Your task to perform on an android device: change alarm snooze length Image 0: 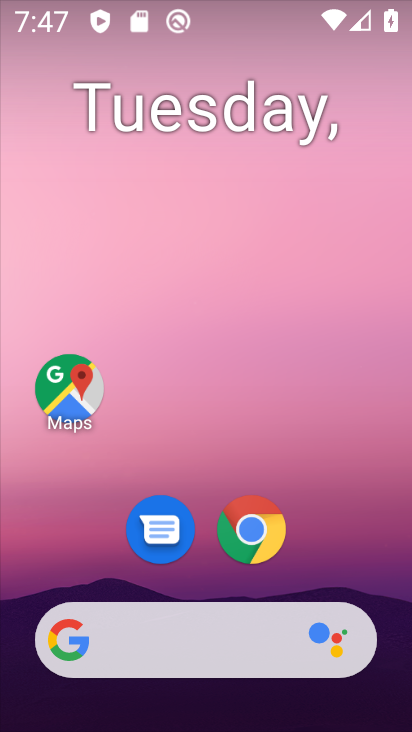
Step 0: drag from (201, 581) to (292, 12)
Your task to perform on an android device: change alarm snooze length Image 1: 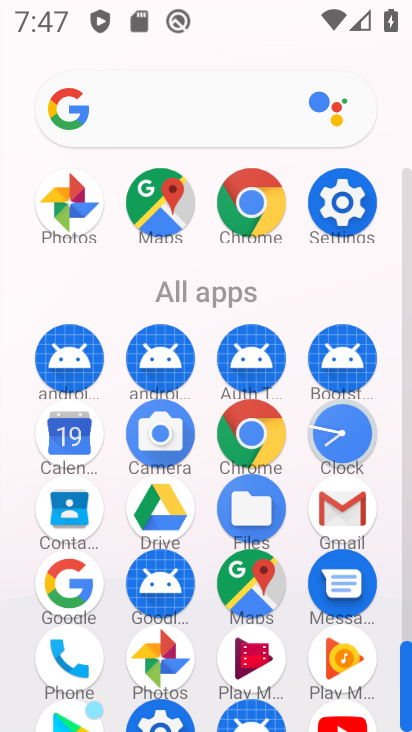
Step 1: click (342, 426)
Your task to perform on an android device: change alarm snooze length Image 2: 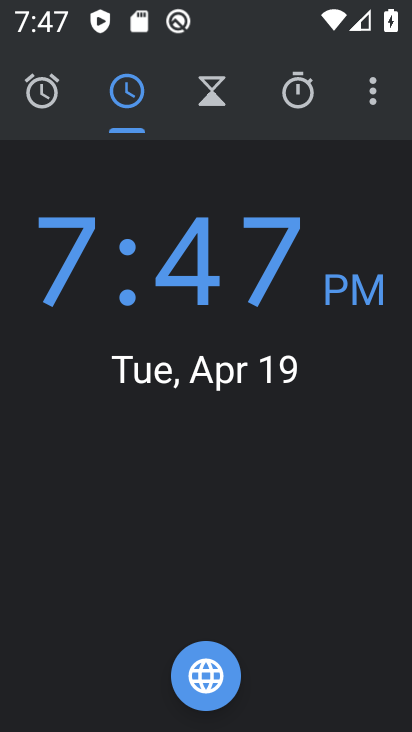
Step 2: click (378, 106)
Your task to perform on an android device: change alarm snooze length Image 3: 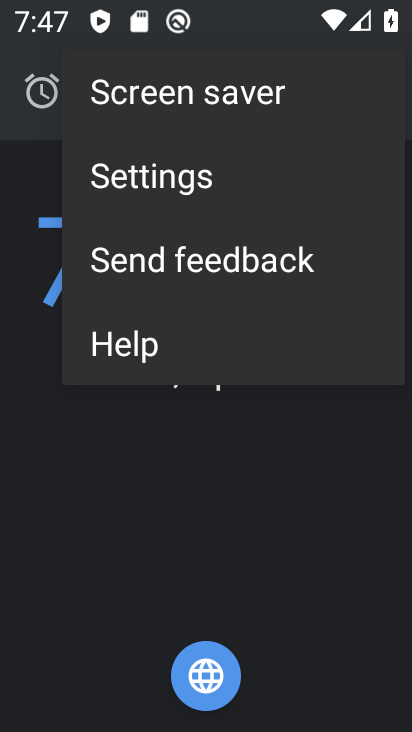
Step 3: click (172, 189)
Your task to perform on an android device: change alarm snooze length Image 4: 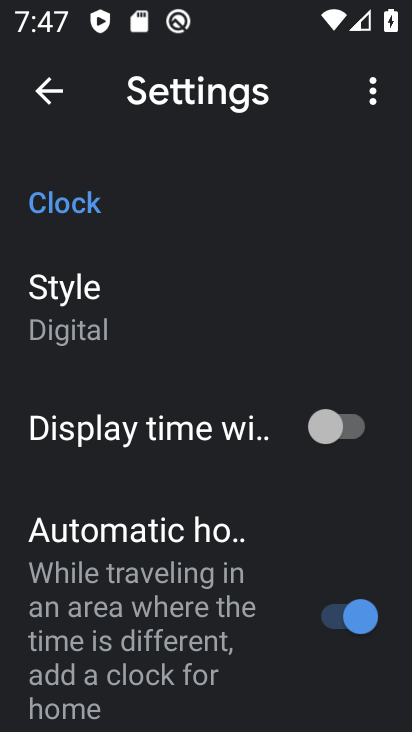
Step 4: drag from (151, 491) to (215, 126)
Your task to perform on an android device: change alarm snooze length Image 5: 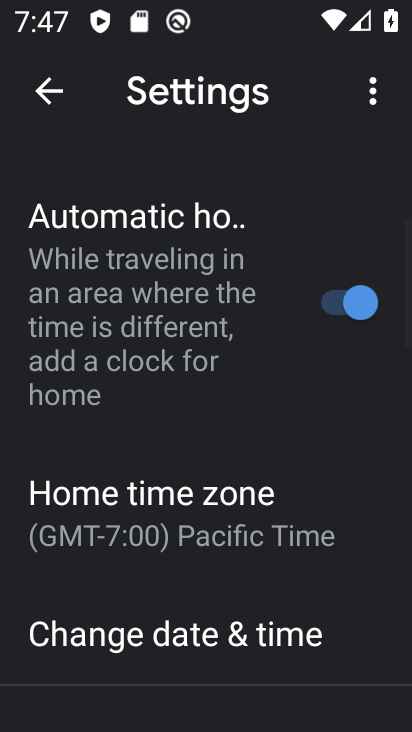
Step 5: drag from (203, 436) to (248, 35)
Your task to perform on an android device: change alarm snooze length Image 6: 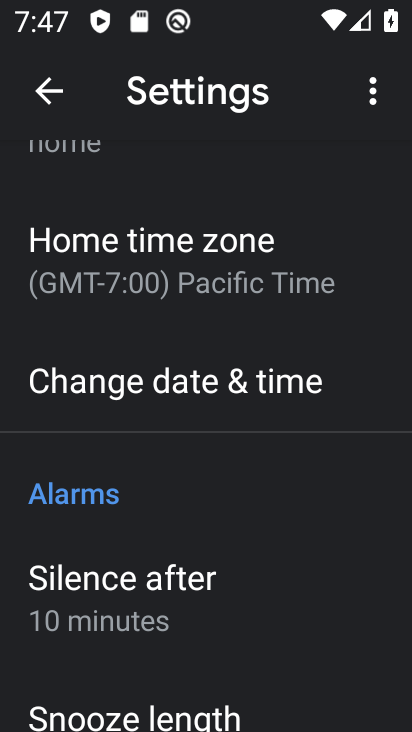
Step 6: drag from (154, 585) to (201, 220)
Your task to perform on an android device: change alarm snooze length Image 7: 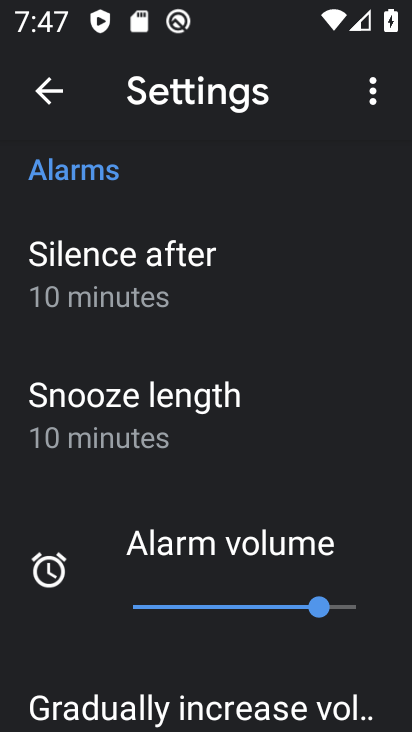
Step 7: click (148, 434)
Your task to perform on an android device: change alarm snooze length Image 8: 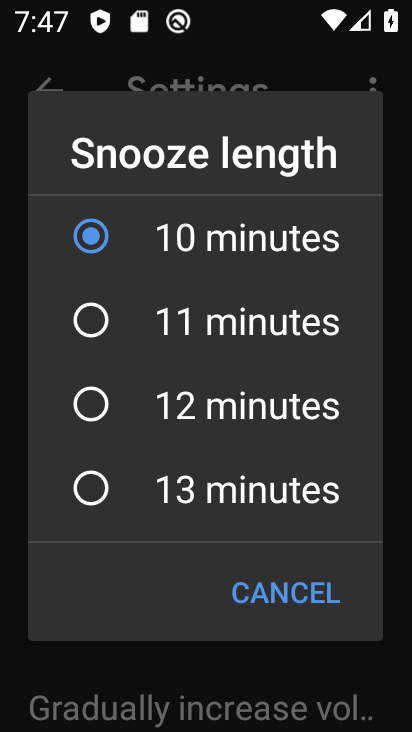
Step 8: click (96, 415)
Your task to perform on an android device: change alarm snooze length Image 9: 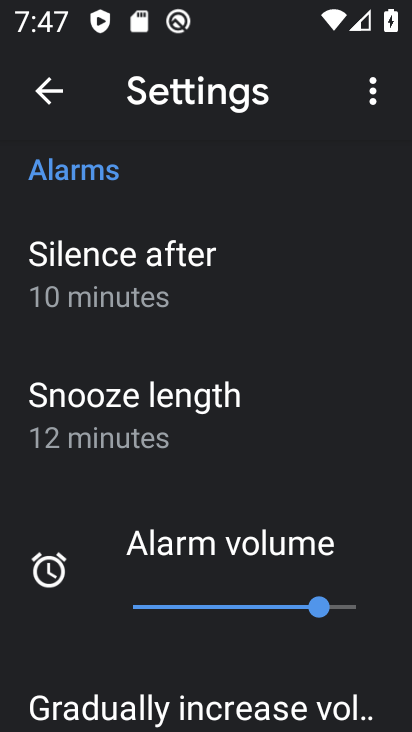
Step 9: task complete